Your task to perform on an android device: open sync settings in chrome Image 0: 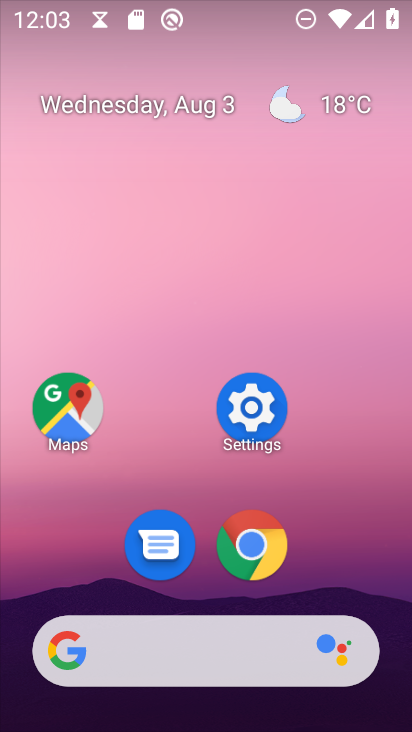
Step 0: click (249, 551)
Your task to perform on an android device: open sync settings in chrome Image 1: 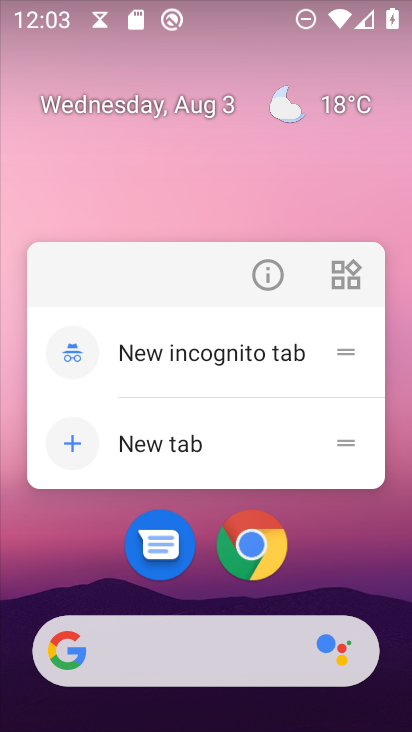
Step 1: click (256, 548)
Your task to perform on an android device: open sync settings in chrome Image 2: 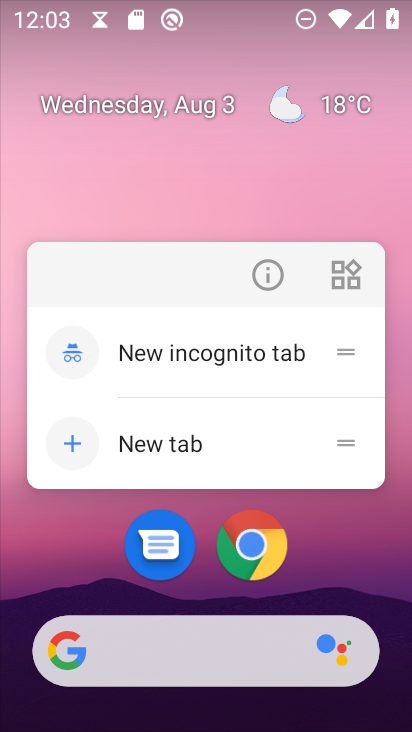
Step 2: click (256, 548)
Your task to perform on an android device: open sync settings in chrome Image 3: 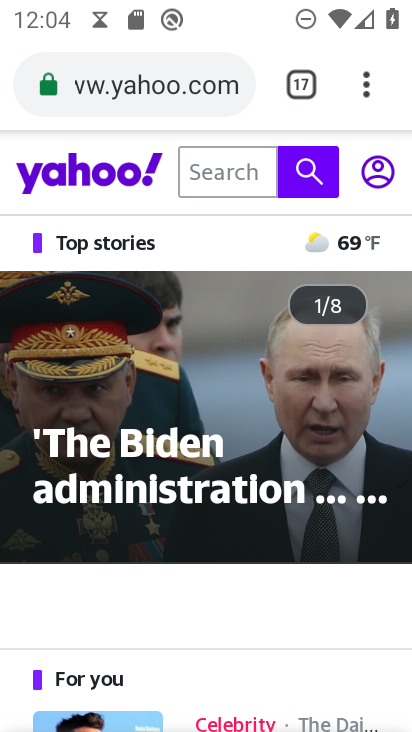
Step 3: drag from (362, 76) to (202, 605)
Your task to perform on an android device: open sync settings in chrome Image 4: 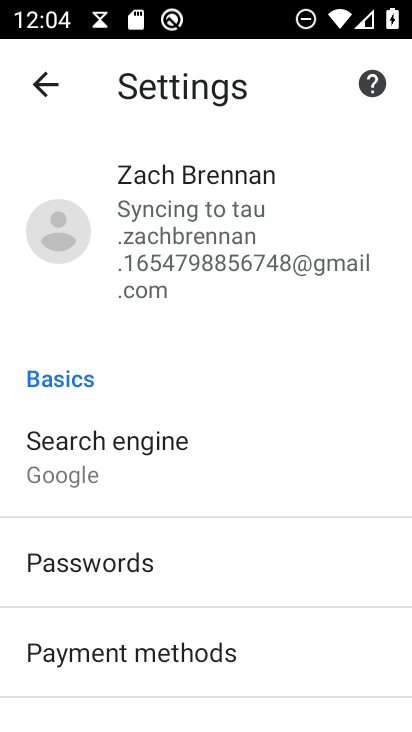
Step 4: click (293, 213)
Your task to perform on an android device: open sync settings in chrome Image 5: 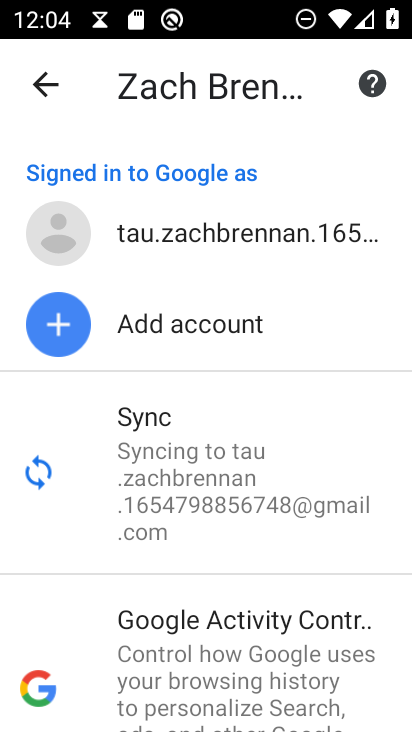
Step 5: click (187, 429)
Your task to perform on an android device: open sync settings in chrome Image 6: 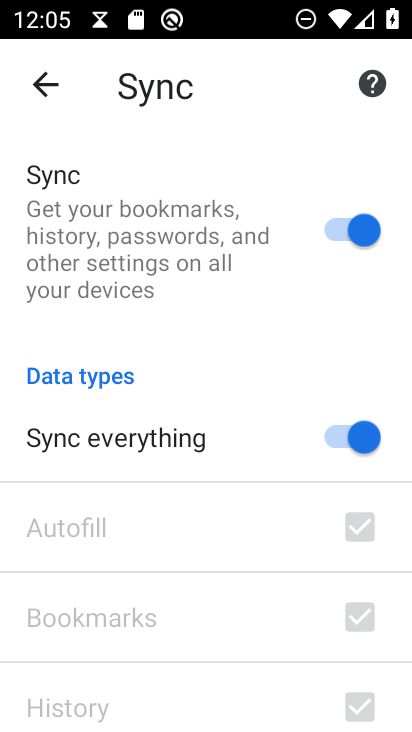
Step 6: task complete